Your task to perform on an android device: Open wifi settings Image 0: 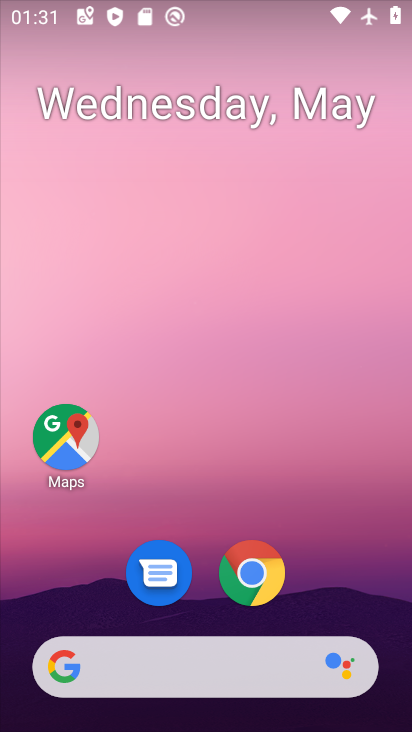
Step 0: drag from (307, 593) to (314, 290)
Your task to perform on an android device: Open wifi settings Image 1: 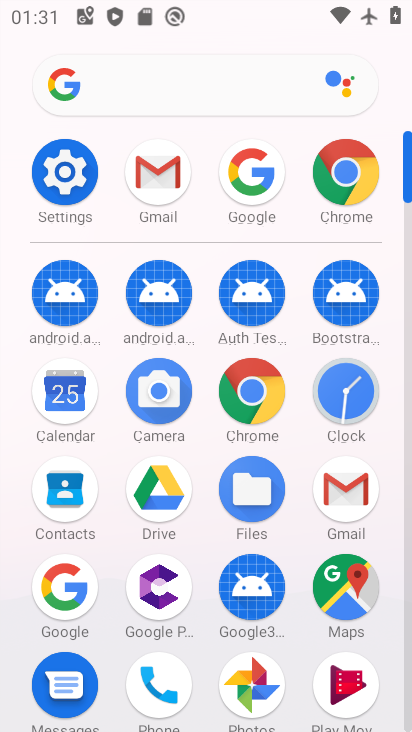
Step 1: click (83, 166)
Your task to perform on an android device: Open wifi settings Image 2: 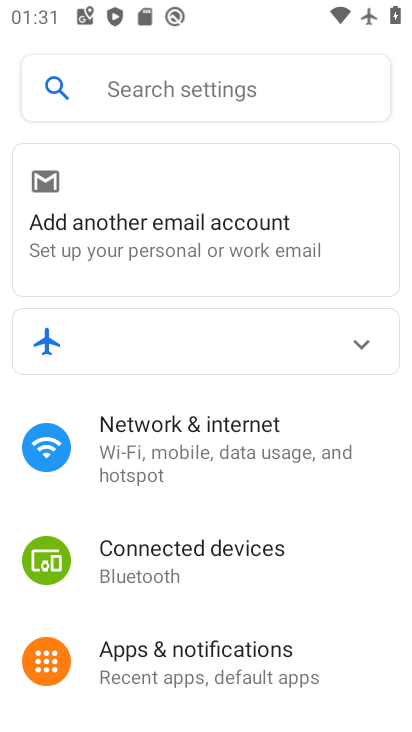
Step 2: click (191, 434)
Your task to perform on an android device: Open wifi settings Image 3: 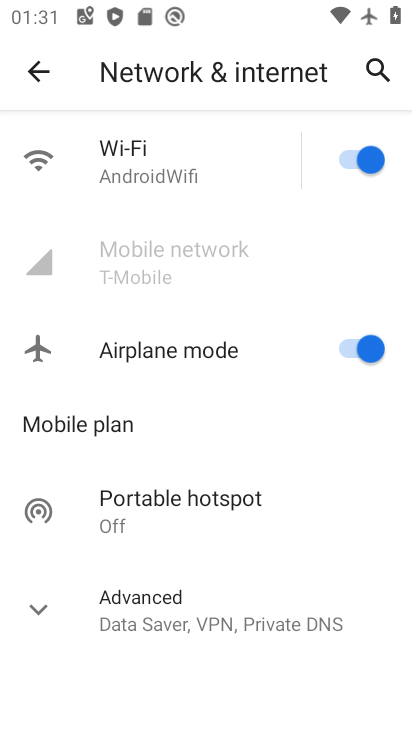
Step 3: task complete